Your task to perform on an android device: How much does a 2 bedroom apartment rent for in Los Angeles? Image 0: 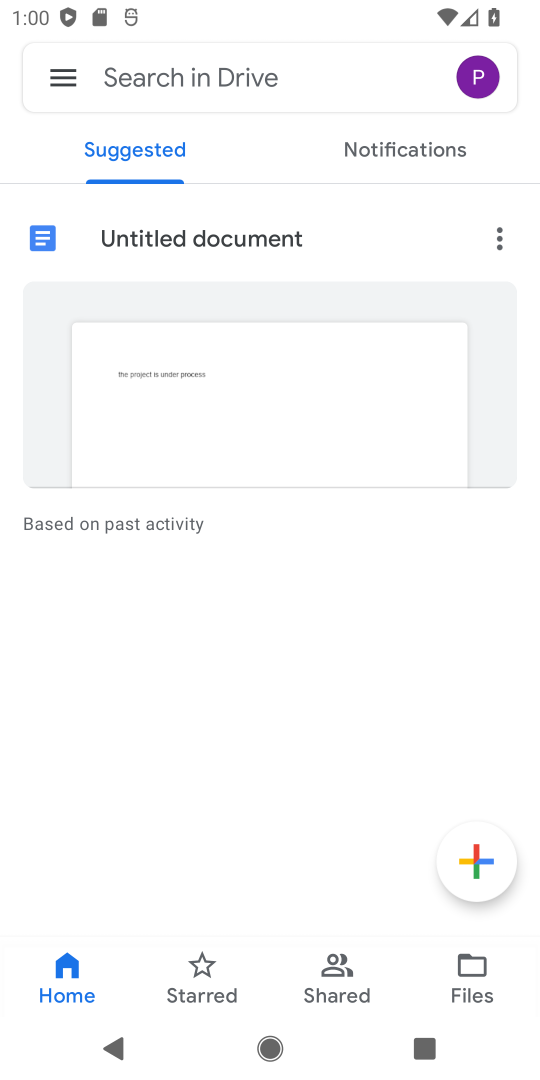
Step 0: press home button
Your task to perform on an android device: How much does a 2 bedroom apartment rent for in Los Angeles? Image 1: 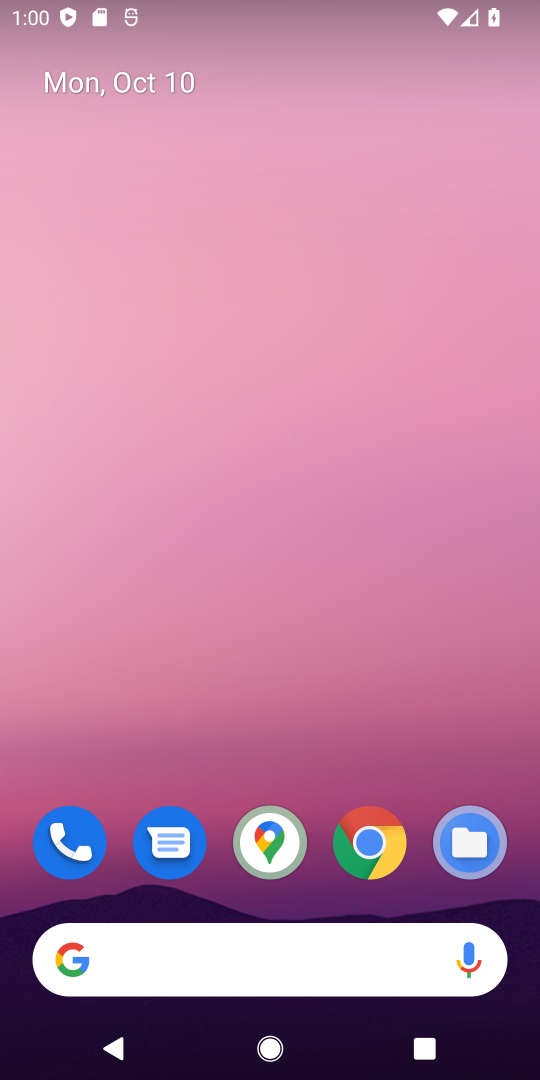
Step 1: click (377, 859)
Your task to perform on an android device: How much does a 2 bedroom apartment rent for in Los Angeles? Image 2: 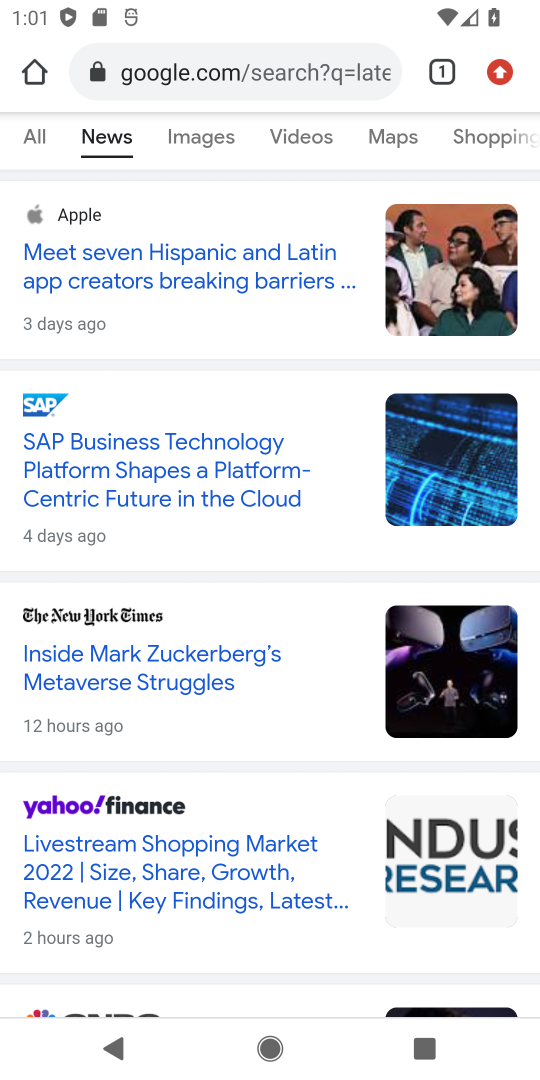
Step 2: click (277, 77)
Your task to perform on an android device: How much does a 2 bedroom apartment rent for in Los Angeles? Image 3: 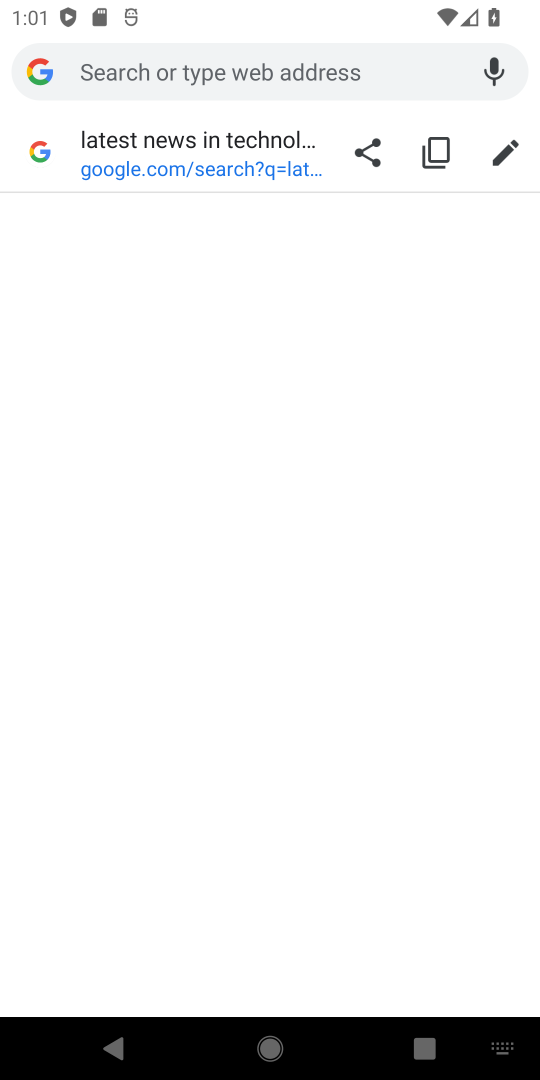
Step 3: type "2 bedroom apartment rent in Los Angeles"
Your task to perform on an android device: How much does a 2 bedroom apartment rent for in Los Angeles? Image 4: 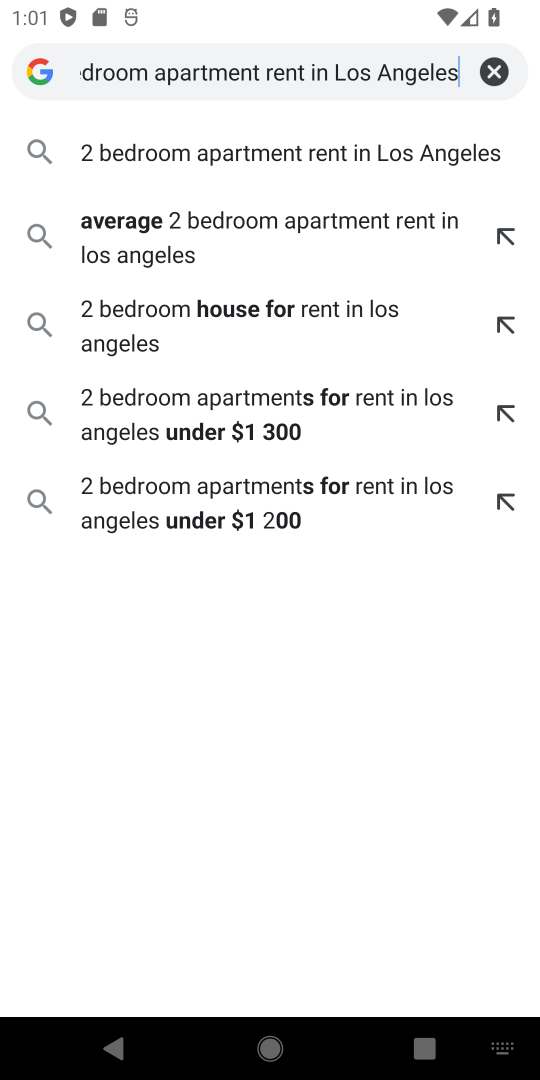
Step 4: press enter
Your task to perform on an android device: How much does a 2 bedroom apartment rent for in Los Angeles? Image 5: 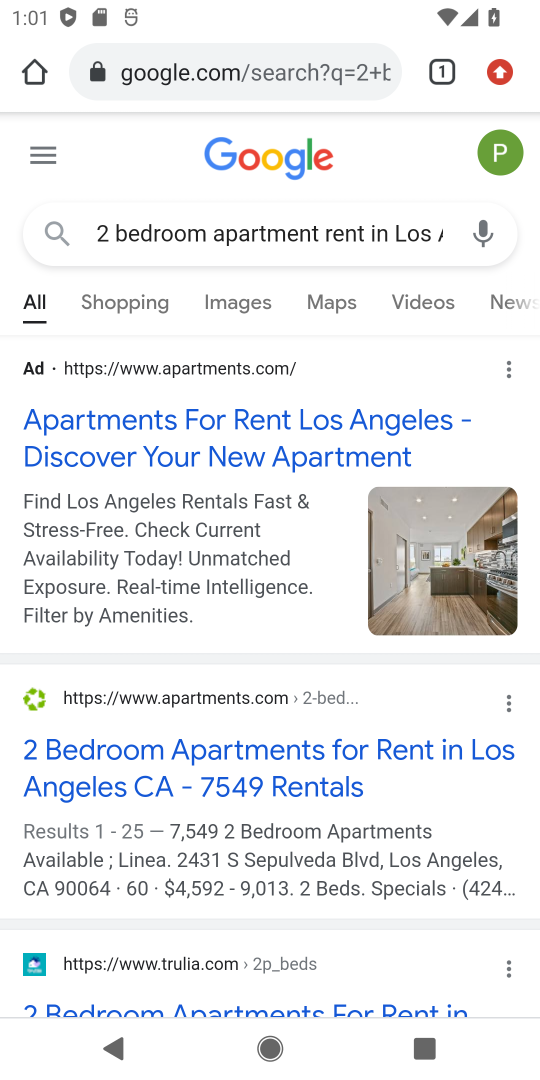
Step 5: click (254, 428)
Your task to perform on an android device: How much does a 2 bedroom apartment rent for in Los Angeles? Image 6: 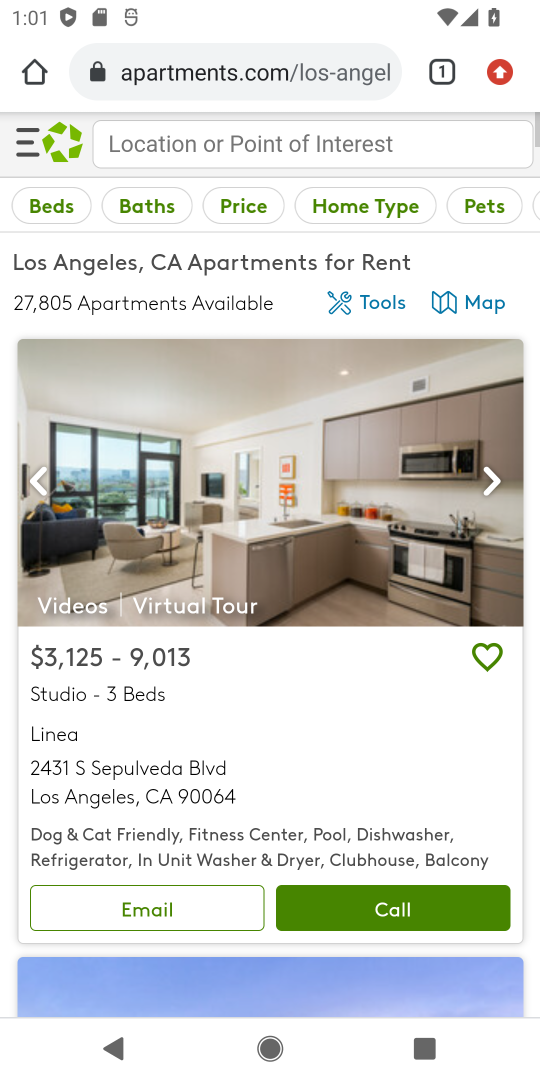
Step 6: drag from (274, 699) to (316, 345)
Your task to perform on an android device: How much does a 2 bedroom apartment rent for in Los Angeles? Image 7: 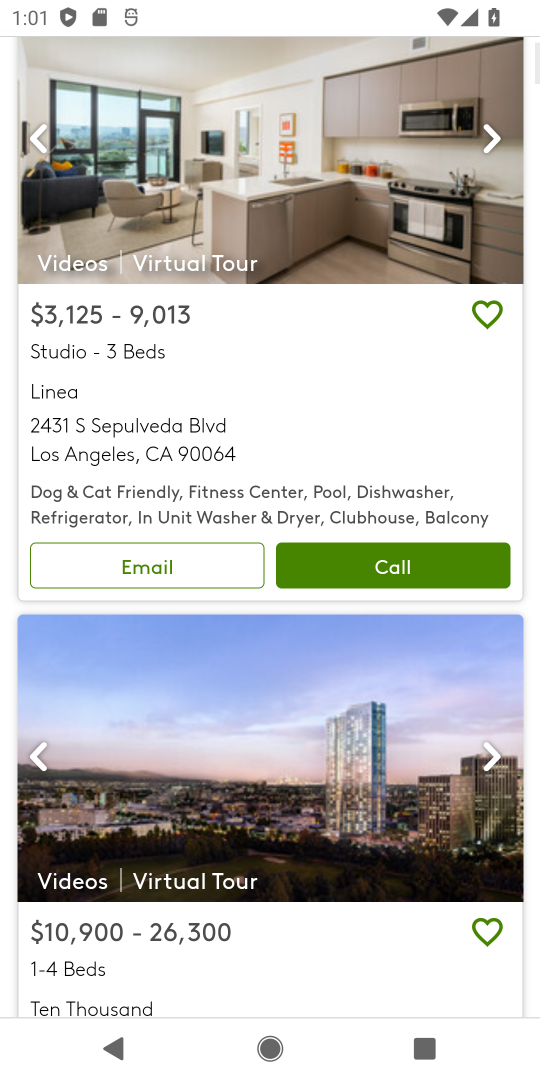
Step 7: drag from (420, 826) to (429, 923)
Your task to perform on an android device: How much does a 2 bedroom apartment rent for in Los Angeles? Image 8: 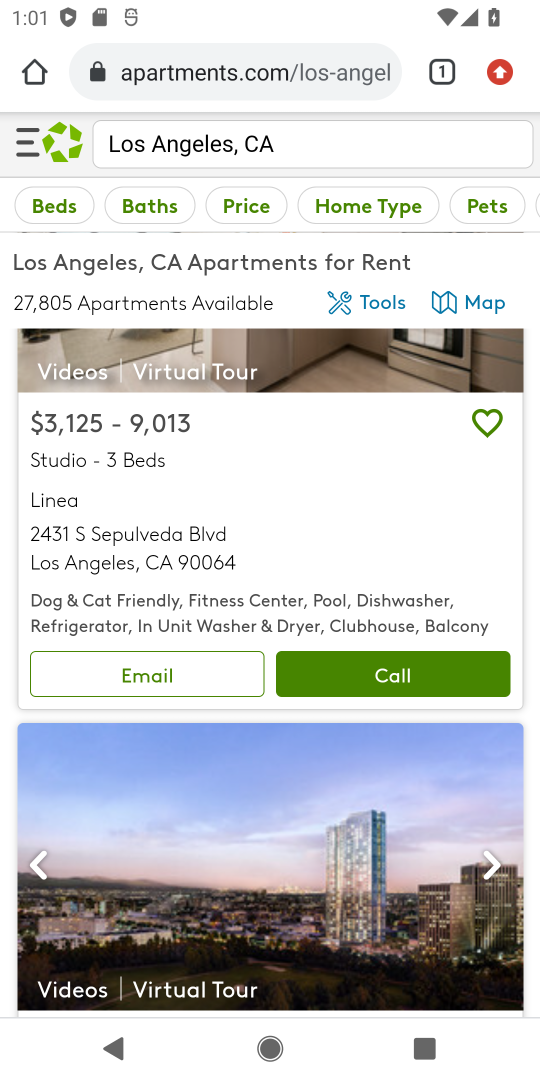
Step 8: click (54, 201)
Your task to perform on an android device: How much does a 2 bedroom apartment rent for in Los Angeles? Image 9: 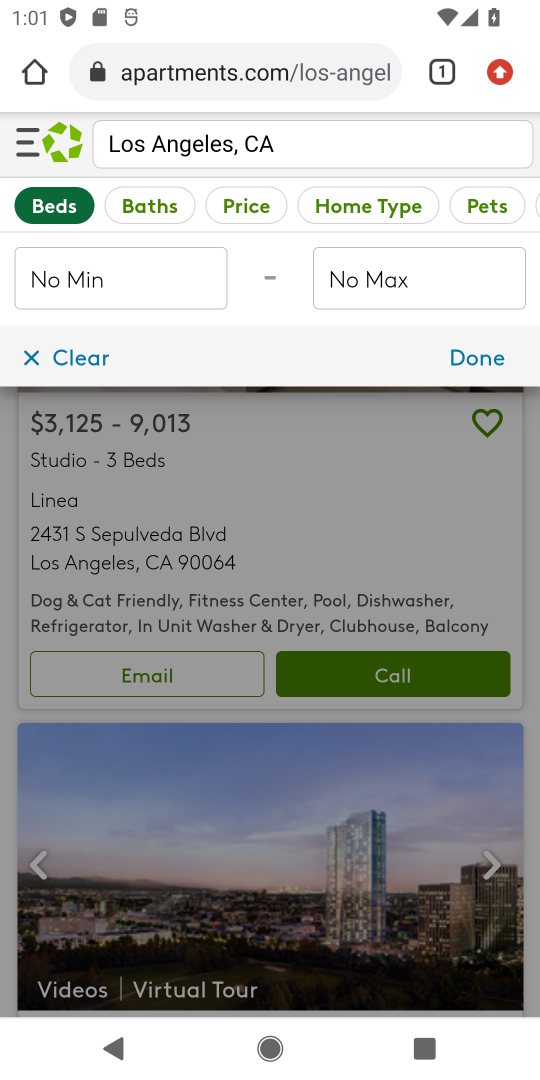
Step 9: click (112, 283)
Your task to perform on an android device: How much does a 2 bedroom apartment rent for in Los Angeles? Image 10: 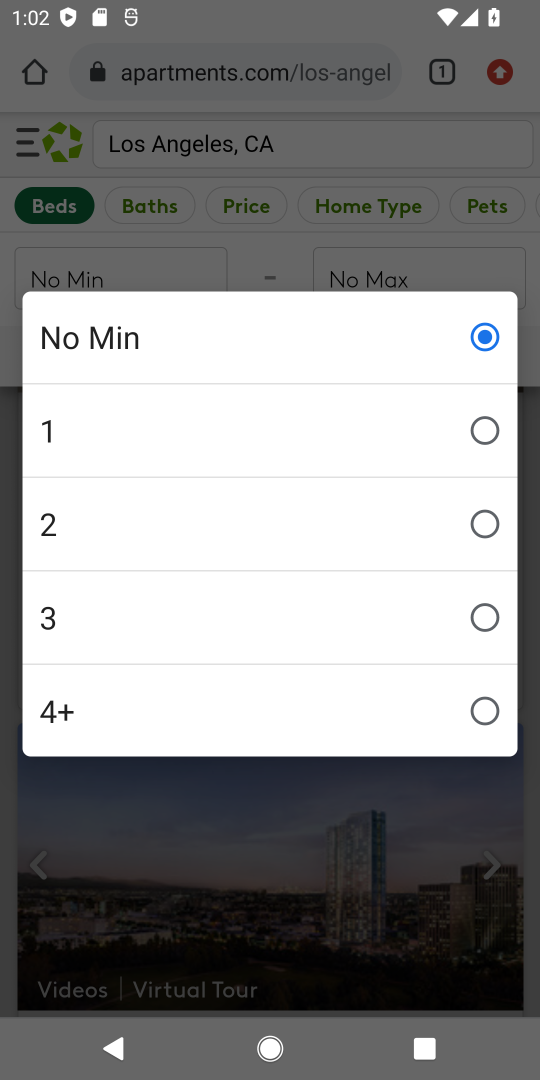
Step 10: click (187, 528)
Your task to perform on an android device: How much does a 2 bedroom apartment rent for in Los Angeles? Image 11: 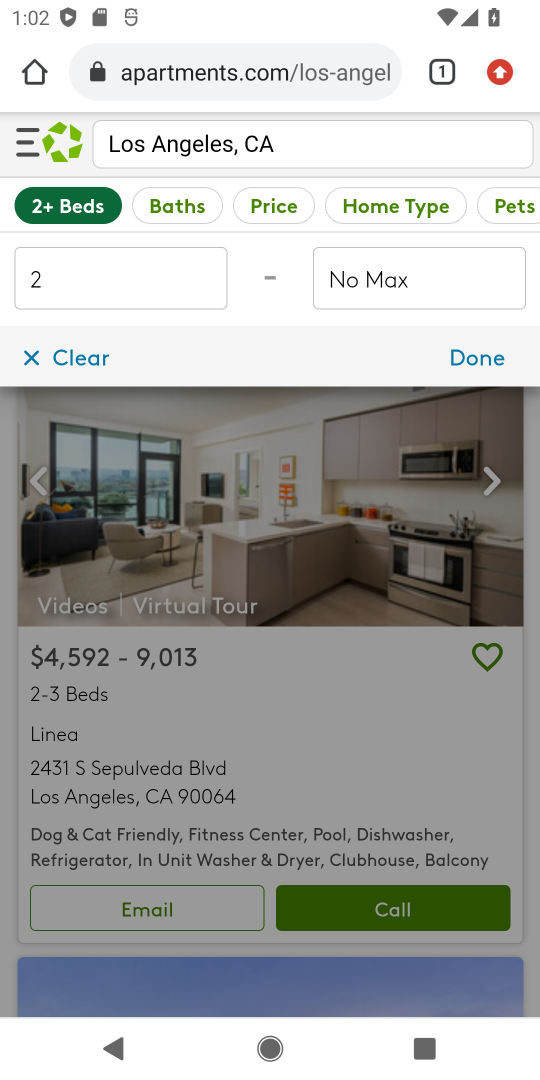
Step 11: click (344, 270)
Your task to perform on an android device: How much does a 2 bedroom apartment rent for in Los Angeles? Image 12: 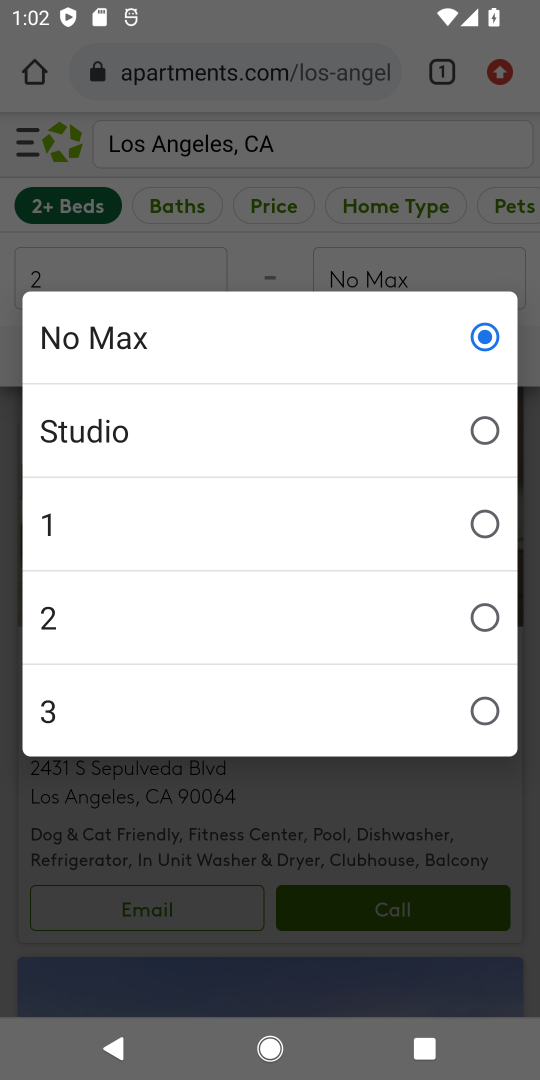
Step 12: click (227, 645)
Your task to perform on an android device: How much does a 2 bedroom apartment rent for in Los Angeles? Image 13: 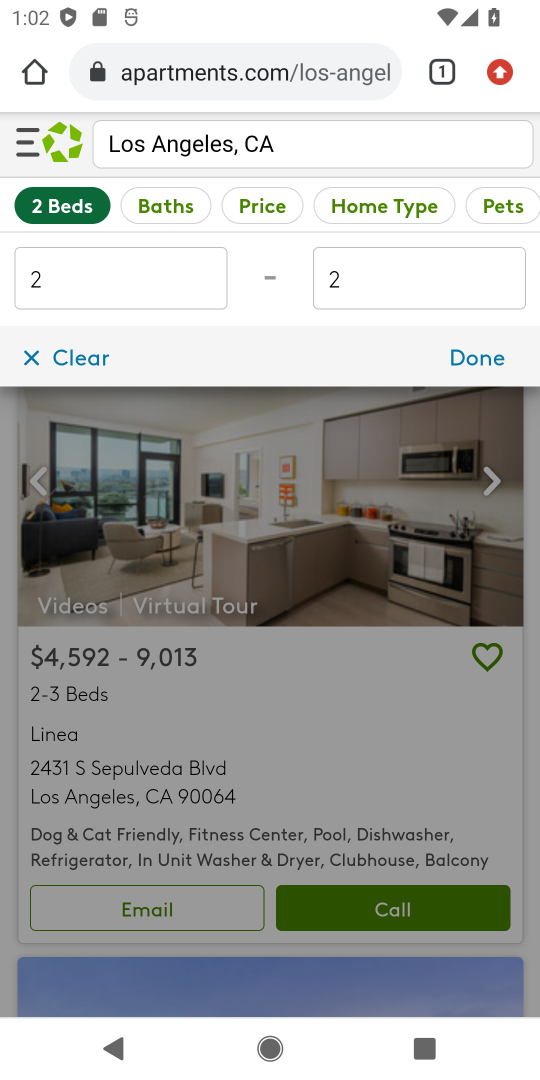
Step 13: click (484, 355)
Your task to perform on an android device: How much does a 2 bedroom apartment rent for in Los Angeles? Image 14: 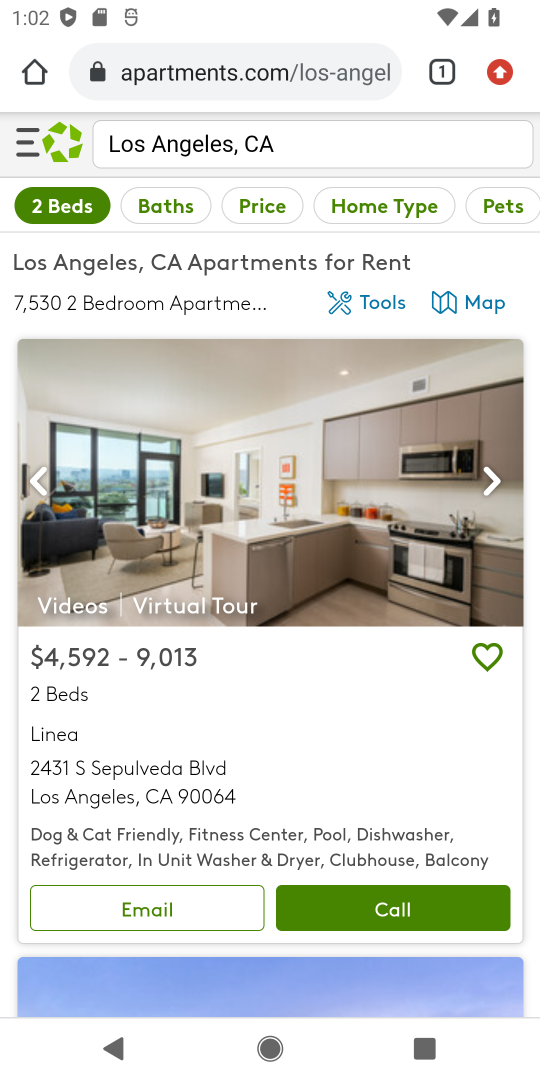
Step 14: task complete